Your task to perform on an android device: uninstall "VLC for Android" Image 0: 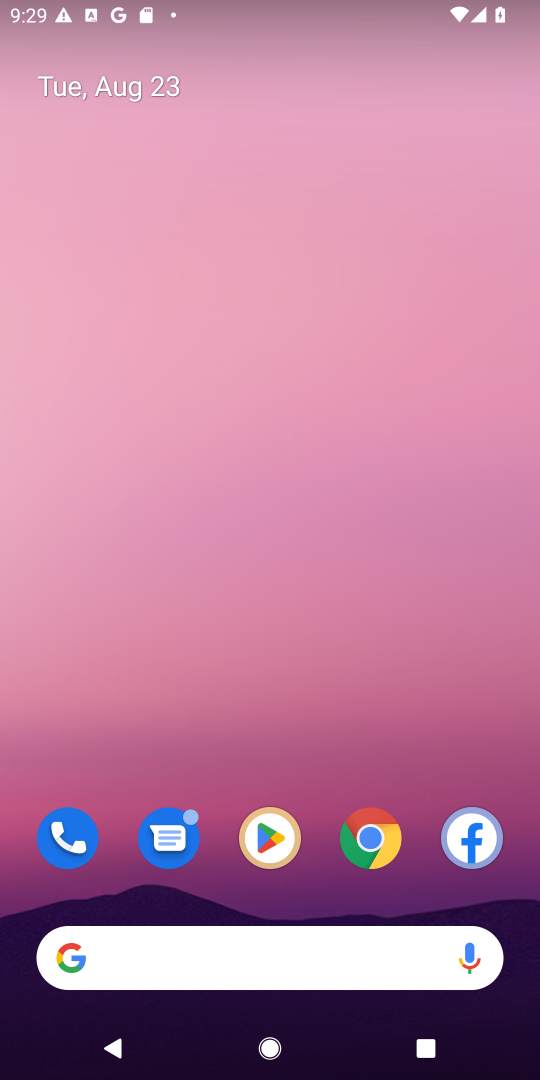
Step 0: click (271, 853)
Your task to perform on an android device: uninstall "VLC for Android" Image 1: 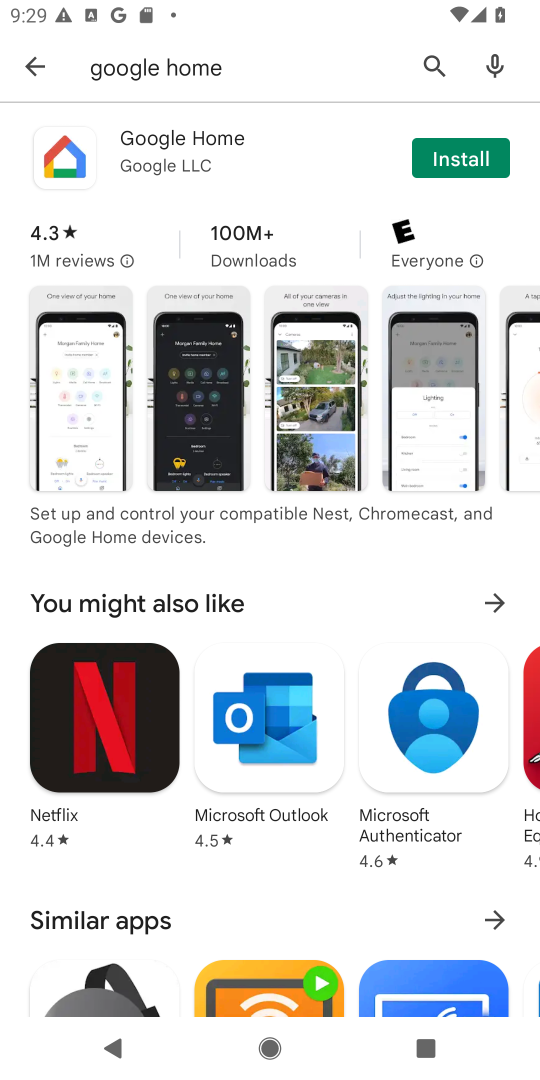
Step 1: click (430, 63)
Your task to perform on an android device: uninstall "VLC for Android" Image 2: 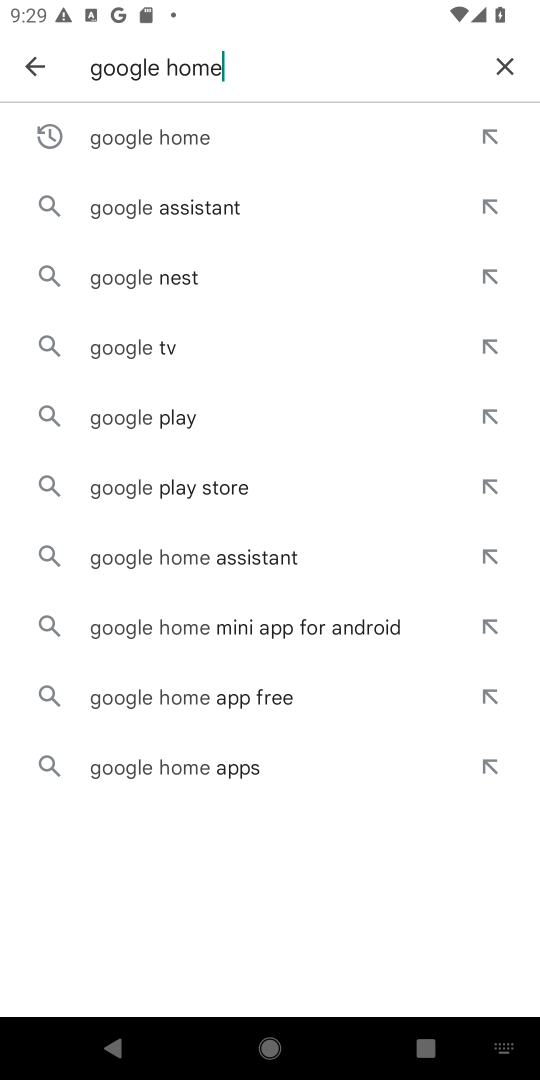
Step 2: click (494, 68)
Your task to perform on an android device: uninstall "VLC for Android" Image 3: 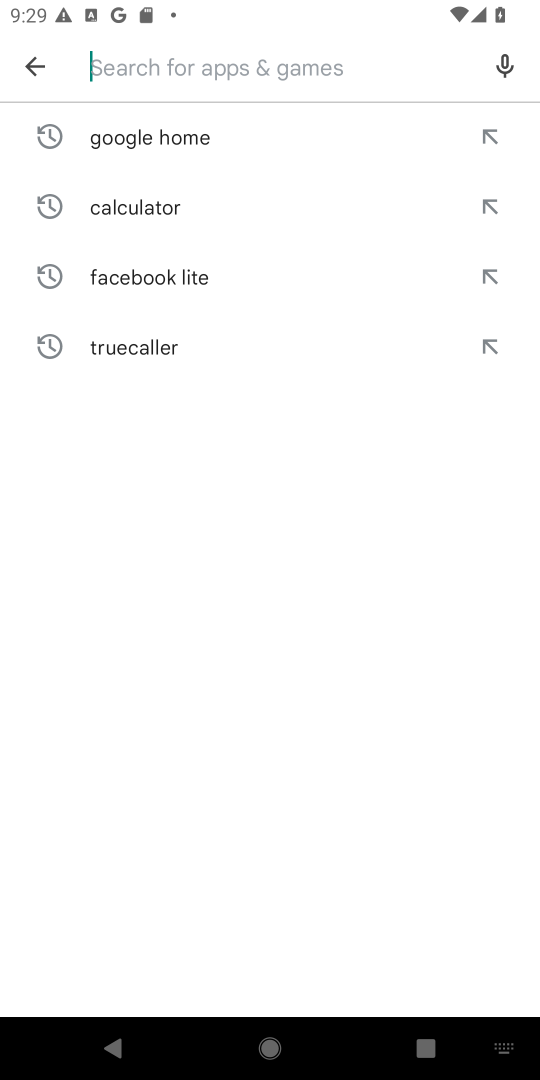
Step 3: type "VLC for Android"
Your task to perform on an android device: uninstall "VLC for Android" Image 4: 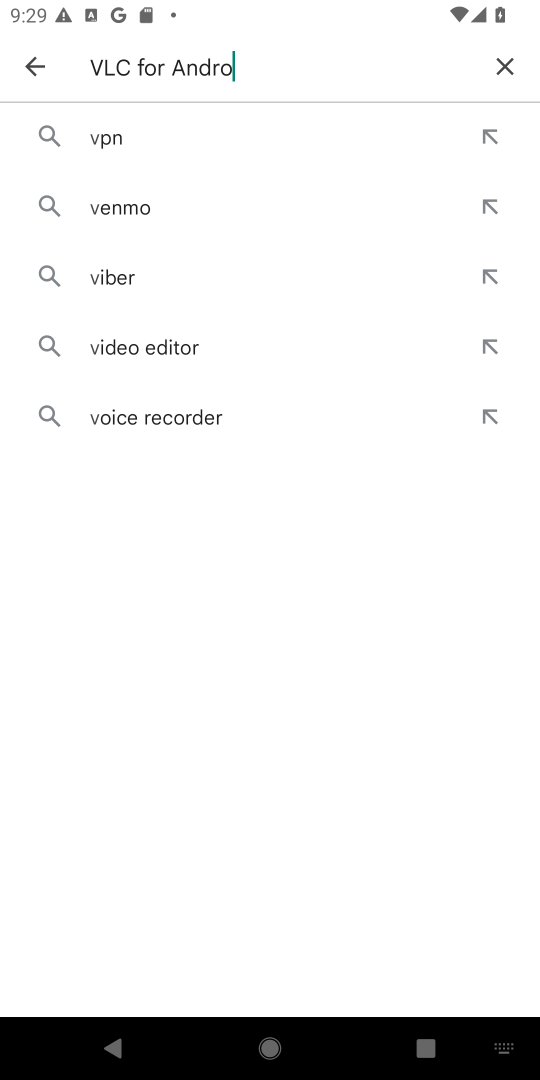
Step 4: type ""
Your task to perform on an android device: uninstall "VLC for Android" Image 5: 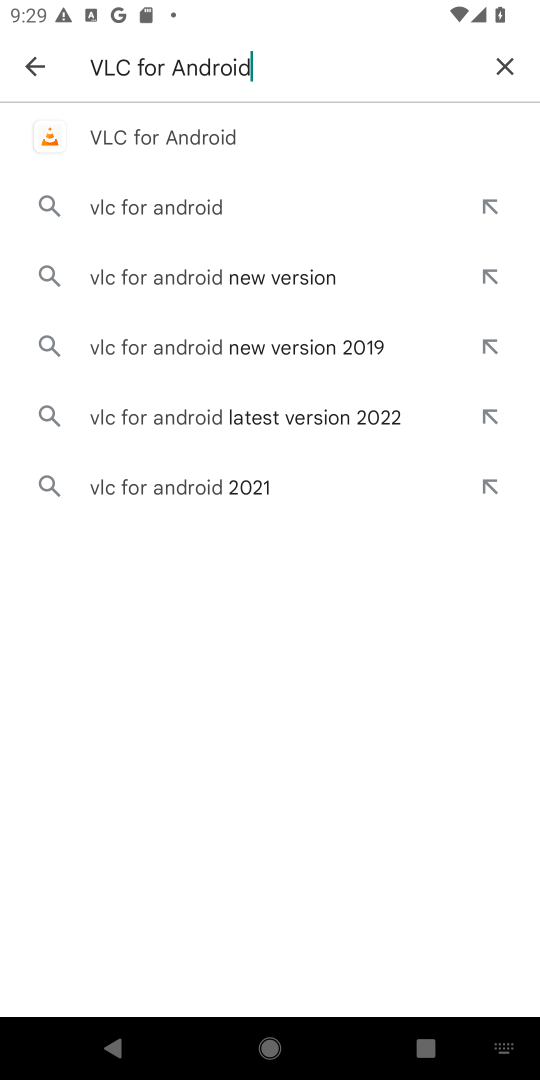
Step 5: click (173, 137)
Your task to perform on an android device: uninstall "VLC for Android" Image 6: 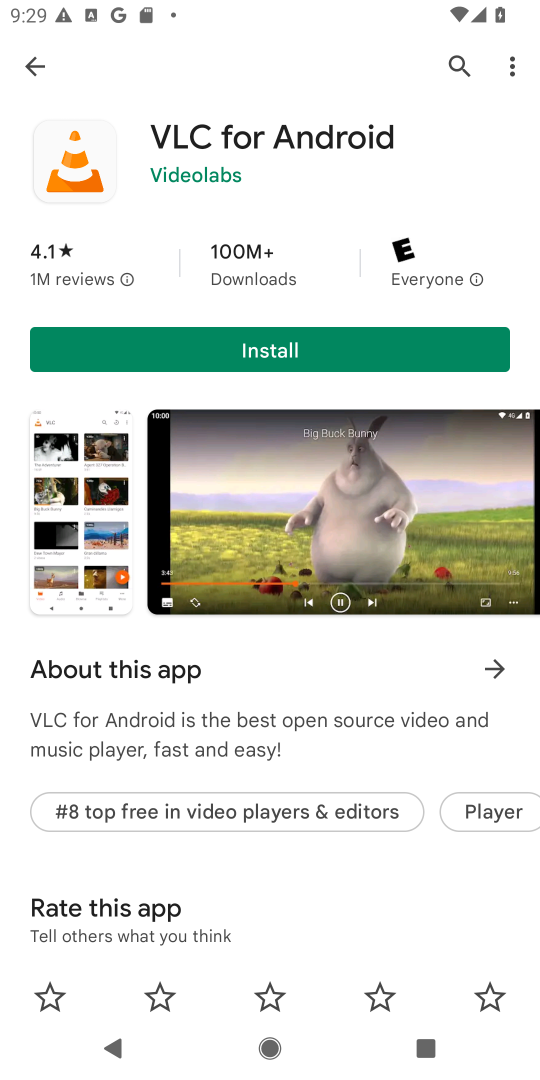
Step 6: task complete